Your task to perform on an android device: toggle improve location accuracy Image 0: 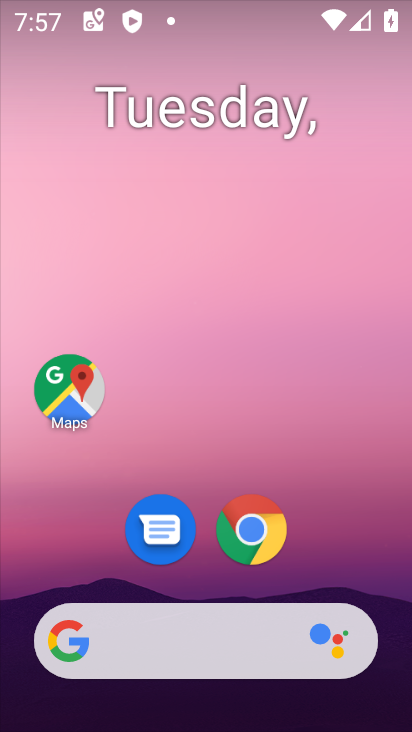
Step 0: drag from (237, 681) to (283, 149)
Your task to perform on an android device: toggle improve location accuracy Image 1: 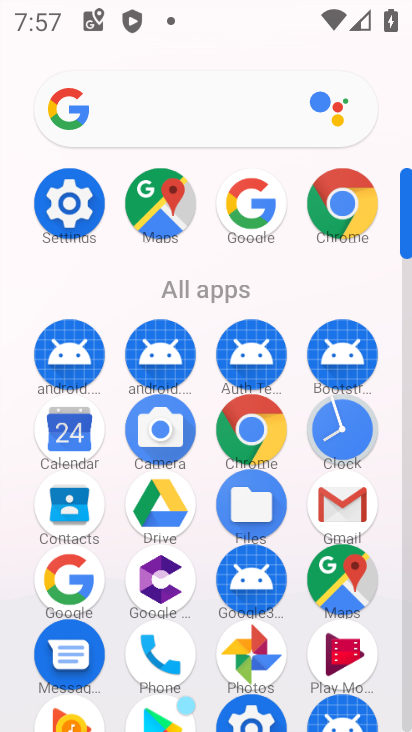
Step 1: drag from (254, 641) to (314, 228)
Your task to perform on an android device: toggle improve location accuracy Image 2: 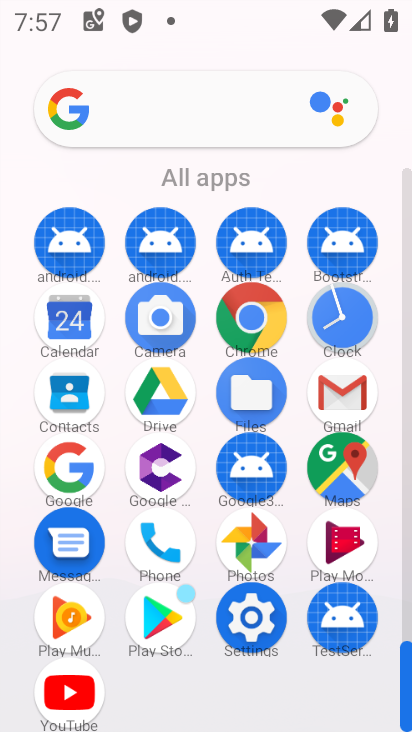
Step 2: click (250, 631)
Your task to perform on an android device: toggle improve location accuracy Image 3: 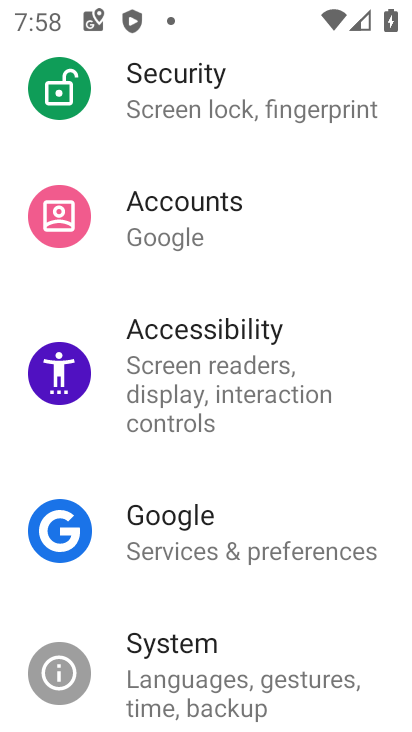
Step 3: drag from (203, 545) to (317, 197)
Your task to perform on an android device: toggle improve location accuracy Image 4: 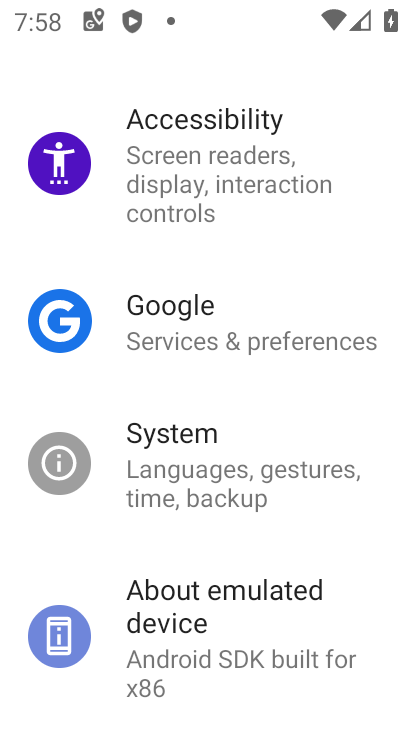
Step 4: drag from (272, 225) to (213, 677)
Your task to perform on an android device: toggle improve location accuracy Image 5: 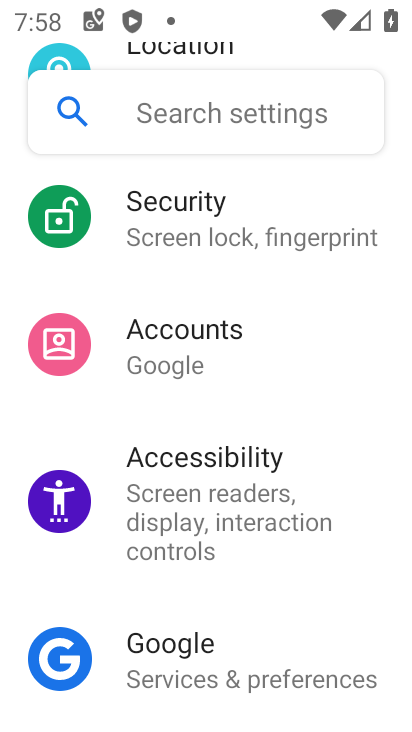
Step 5: drag from (229, 368) to (172, 677)
Your task to perform on an android device: toggle improve location accuracy Image 6: 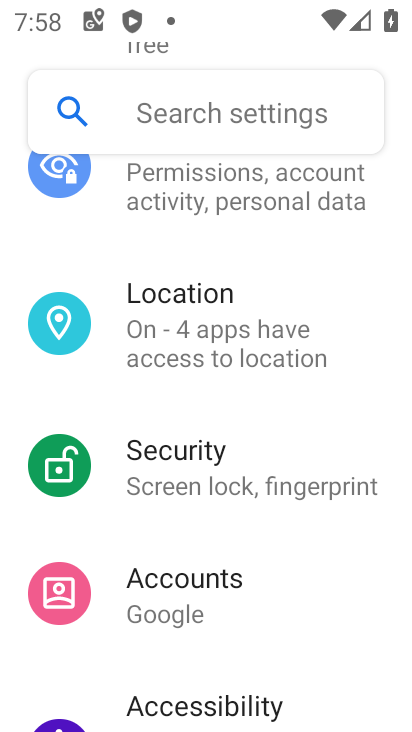
Step 6: drag from (247, 284) to (200, 490)
Your task to perform on an android device: toggle improve location accuracy Image 7: 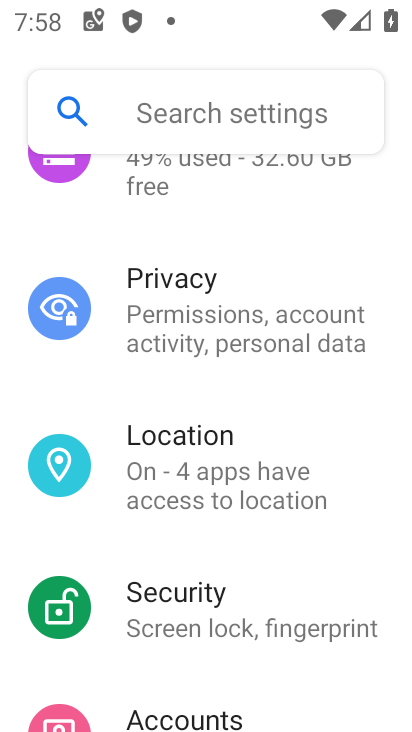
Step 7: click (255, 464)
Your task to perform on an android device: toggle improve location accuracy Image 8: 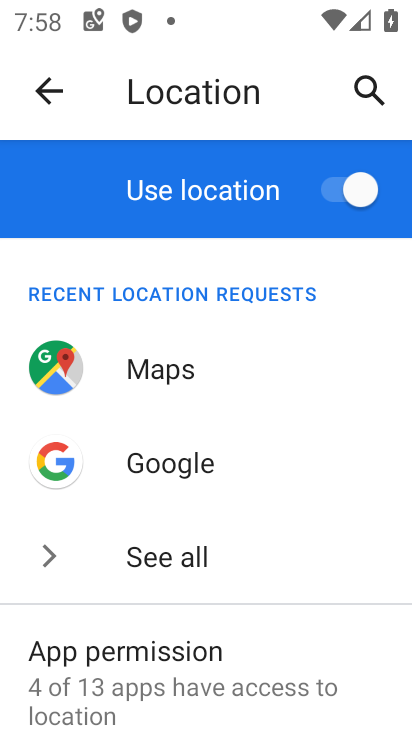
Step 8: drag from (245, 583) to (304, 166)
Your task to perform on an android device: toggle improve location accuracy Image 9: 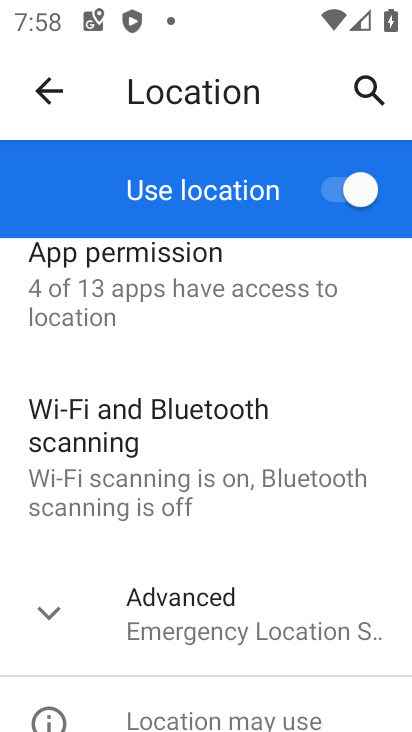
Step 9: click (214, 631)
Your task to perform on an android device: toggle improve location accuracy Image 10: 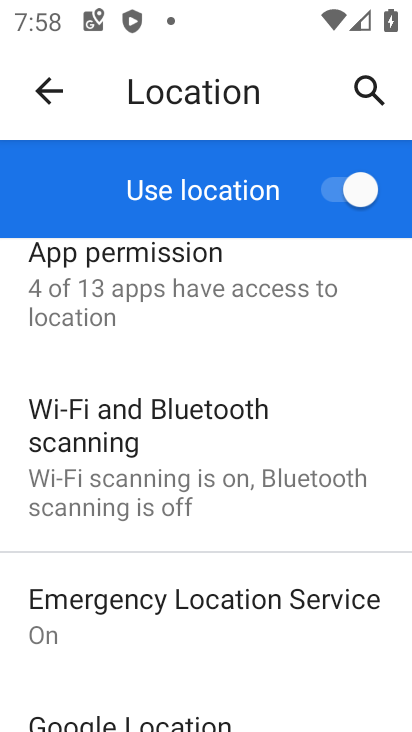
Step 10: drag from (215, 628) to (274, 350)
Your task to perform on an android device: toggle improve location accuracy Image 11: 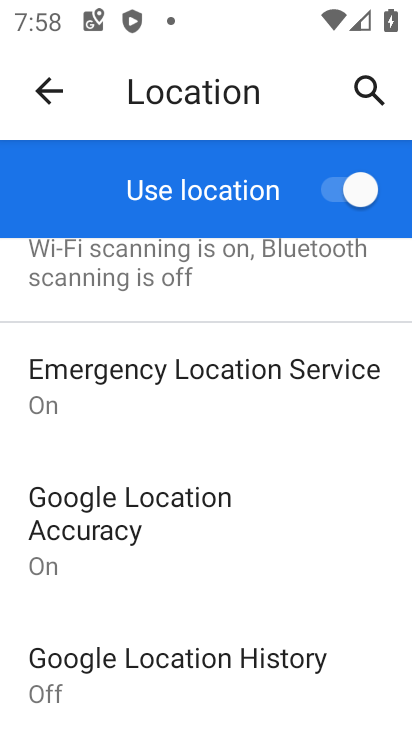
Step 11: click (220, 507)
Your task to perform on an android device: toggle improve location accuracy Image 12: 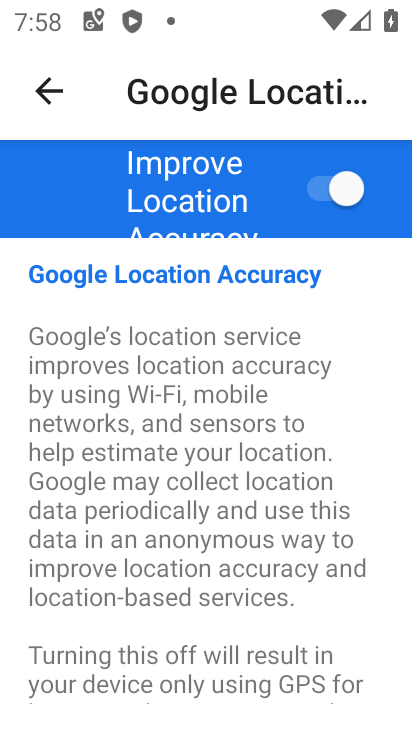
Step 12: click (334, 200)
Your task to perform on an android device: toggle improve location accuracy Image 13: 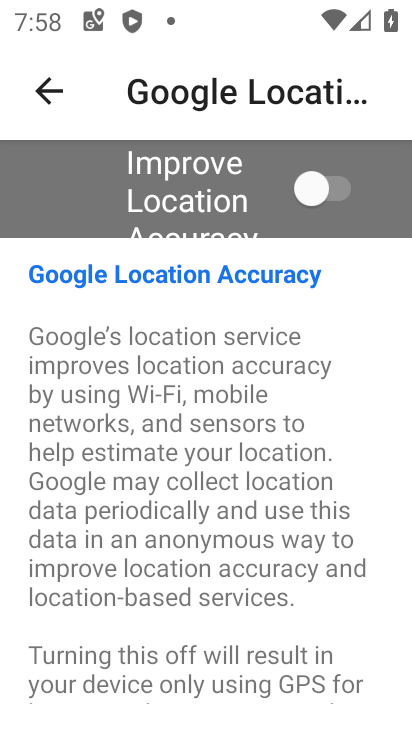
Step 13: task complete